Your task to perform on an android device: add a label to a message in the gmail app Image 0: 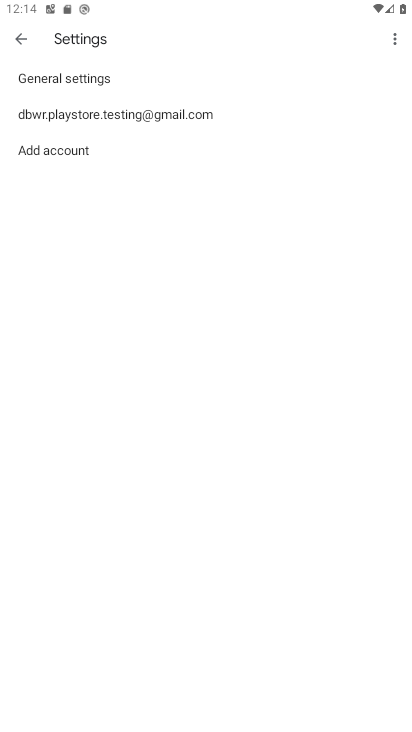
Step 0: press home button
Your task to perform on an android device: add a label to a message in the gmail app Image 1: 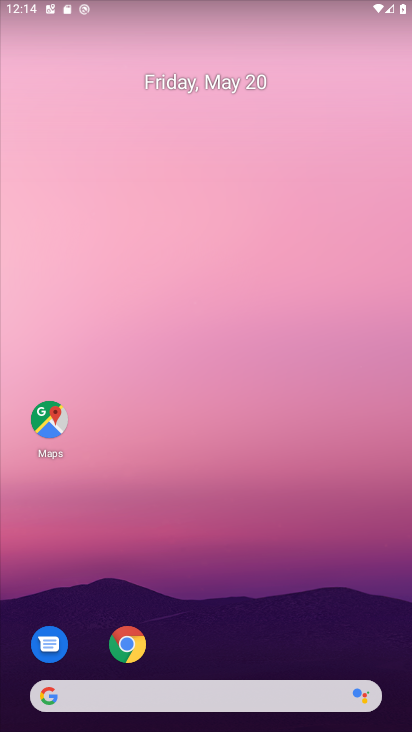
Step 1: drag from (178, 659) to (228, 235)
Your task to perform on an android device: add a label to a message in the gmail app Image 2: 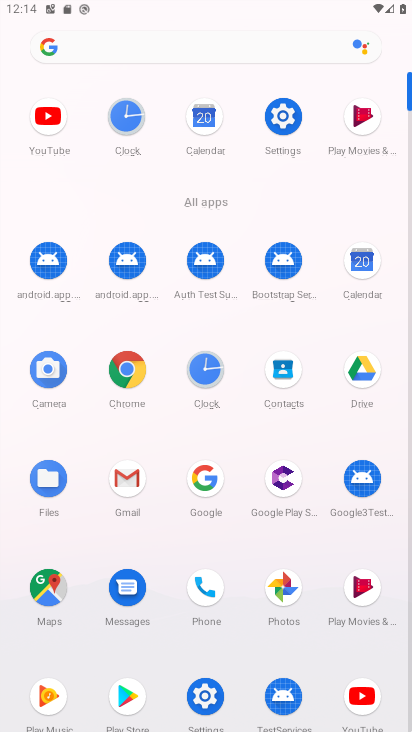
Step 2: click (144, 484)
Your task to perform on an android device: add a label to a message in the gmail app Image 3: 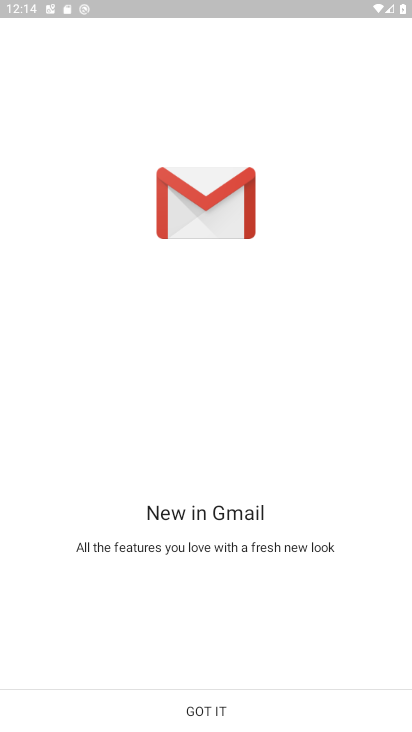
Step 3: click (199, 709)
Your task to perform on an android device: add a label to a message in the gmail app Image 4: 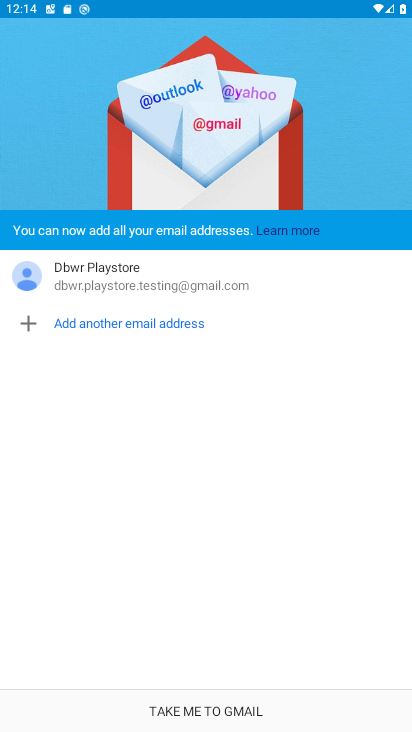
Step 4: click (202, 711)
Your task to perform on an android device: add a label to a message in the gmail app Image 5: 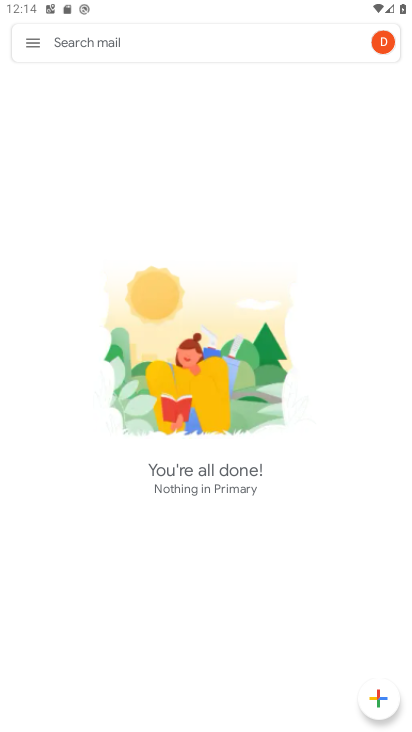
Step 5: click (30, 41)
Your task to perform on an android device: add a label to a message in the gmail app Image 6: 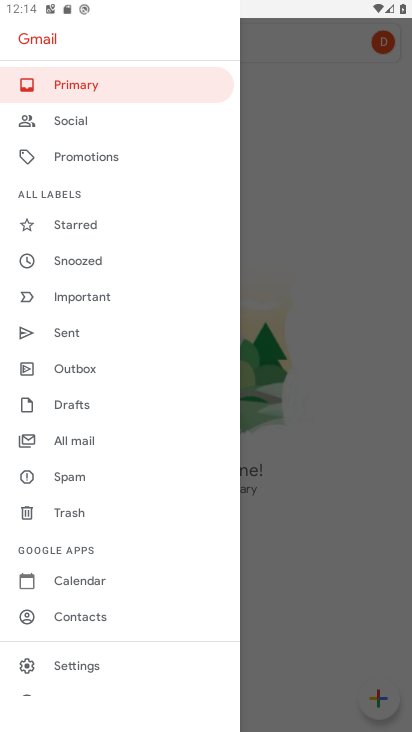
Step 6: click (70, 444)
Your task to perform on an android device: add a label to a message in the gmail app Image 7: 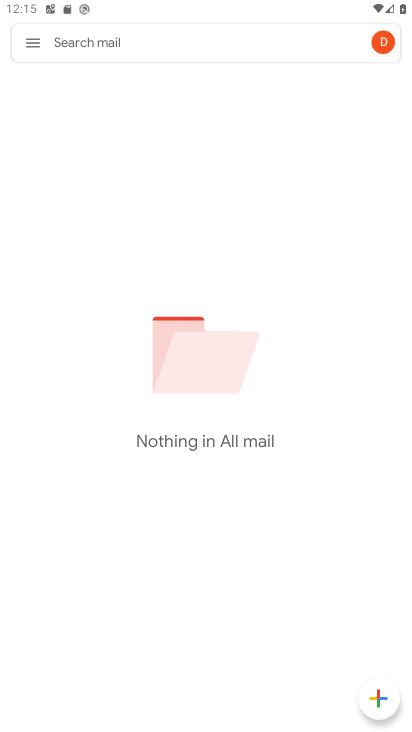
Step 7: task complete